Your task to perform on an android device: open chrome and create a bookmark for the current page Image 0: 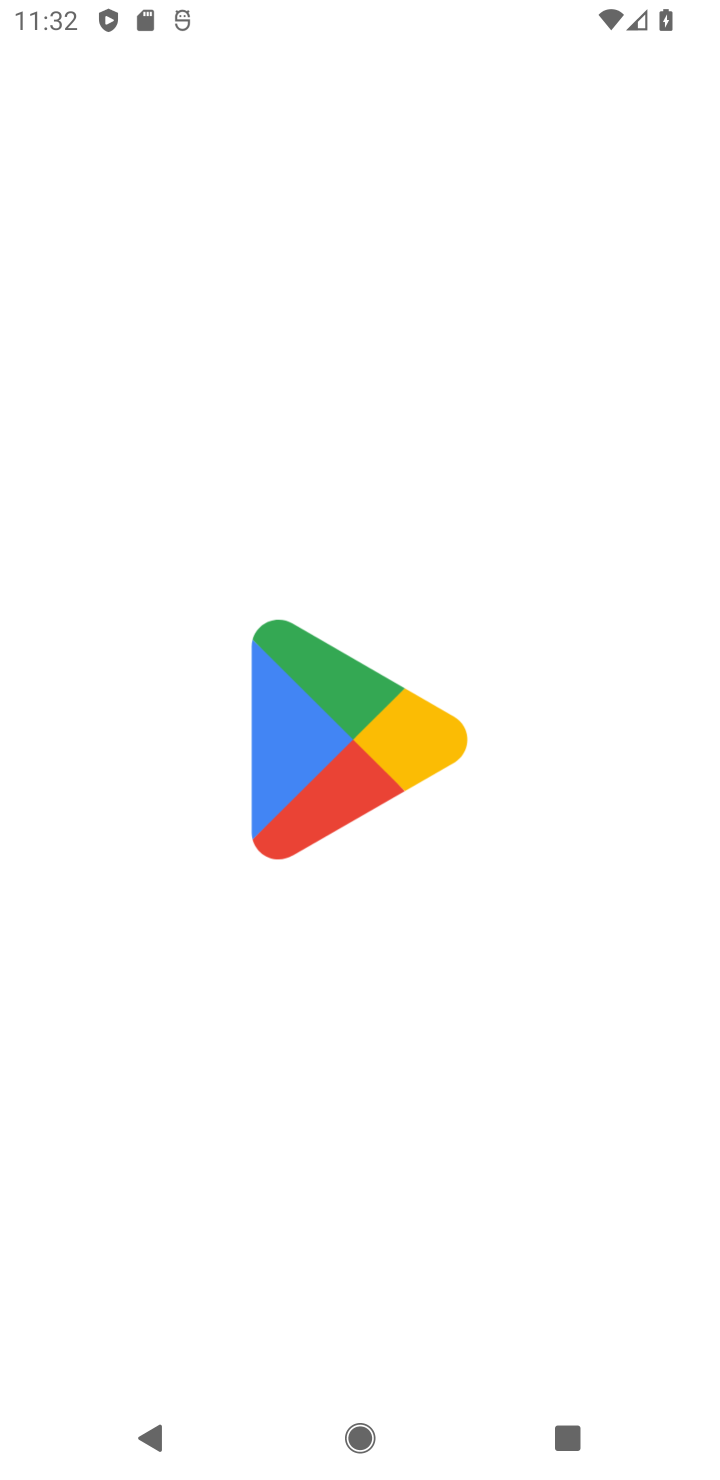
Step 0: press home button
Your task to perform on an android device: open chrome and create a bookmark for the current page Image 1: 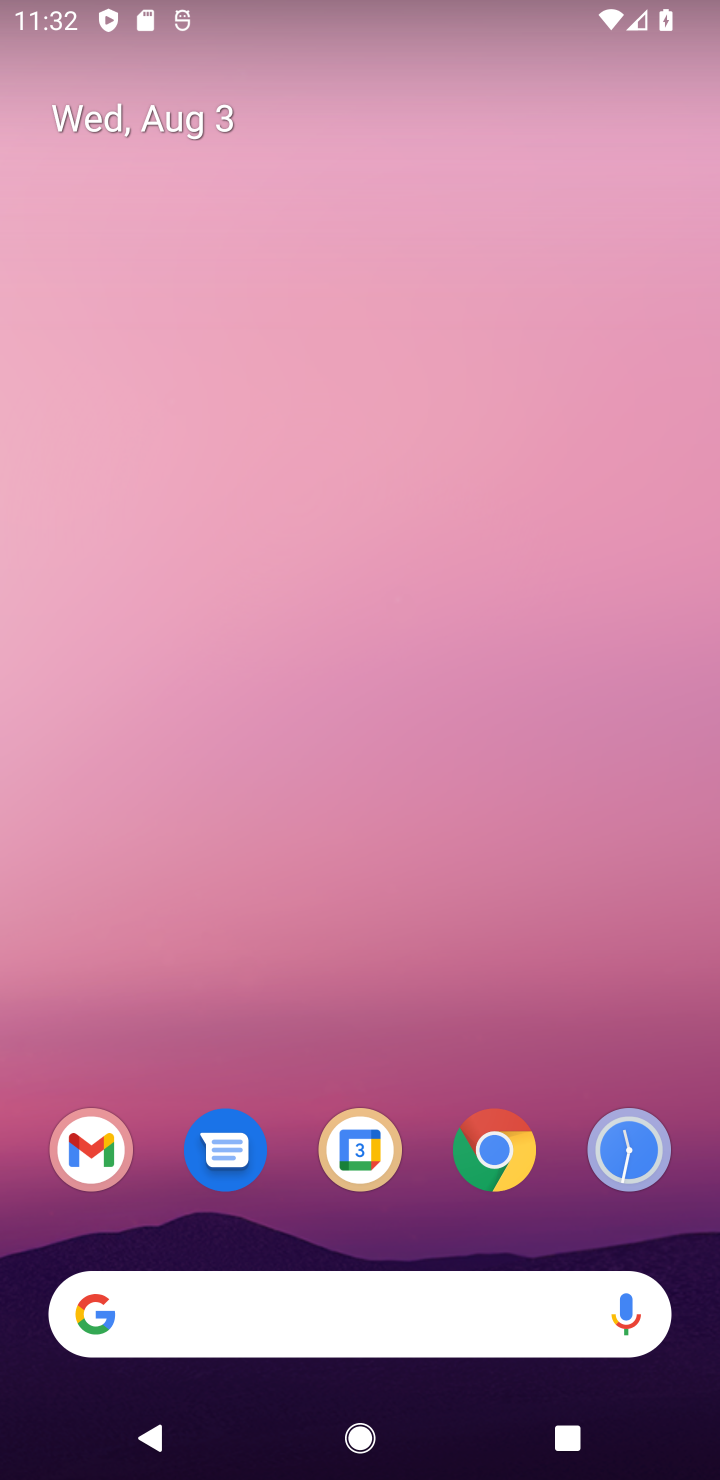
Step 1: drag from (575, 899) to (592, 394)
Your task to perform on an android device: open chrome and create a bookmark for the current page Image 2: 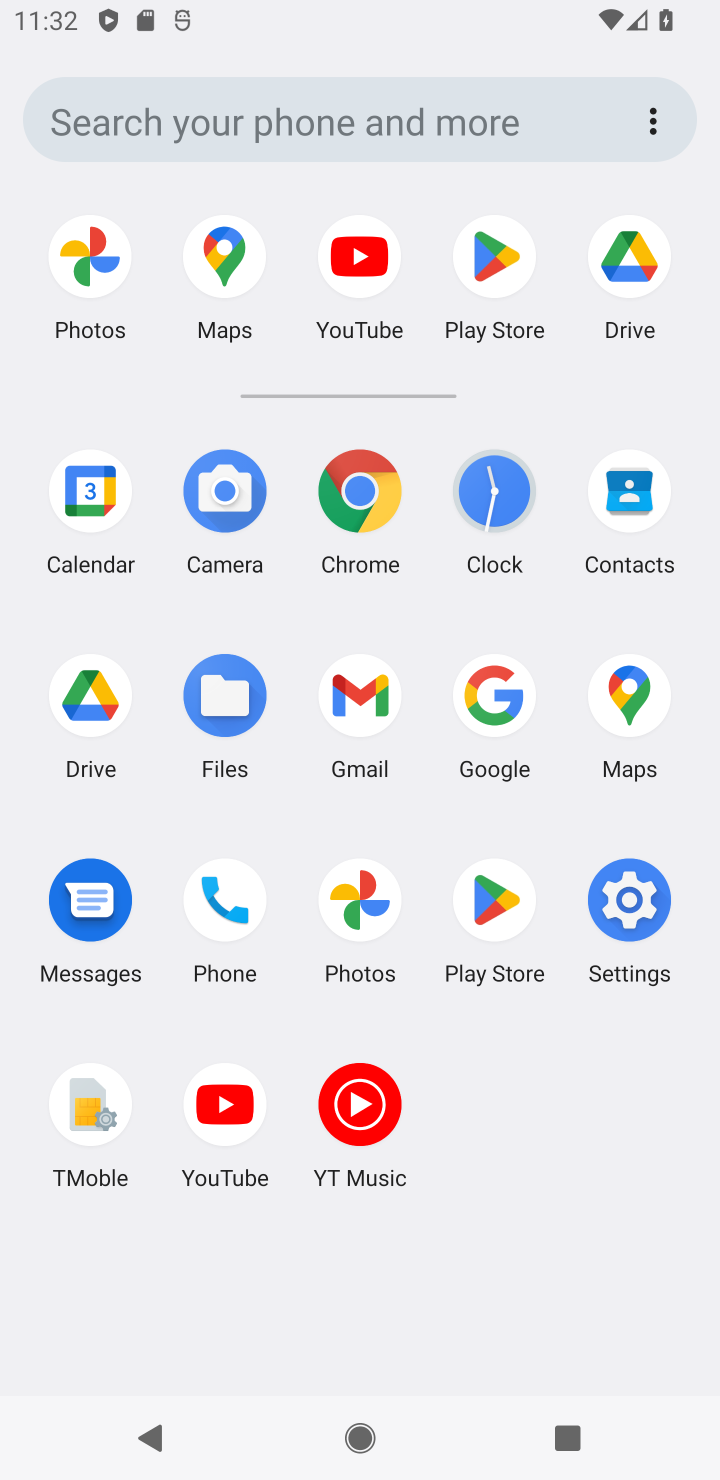
Step 2: click (355, 487)
Your task to perform on an android device: open chrome and create a bookmark for the current page Image 3: 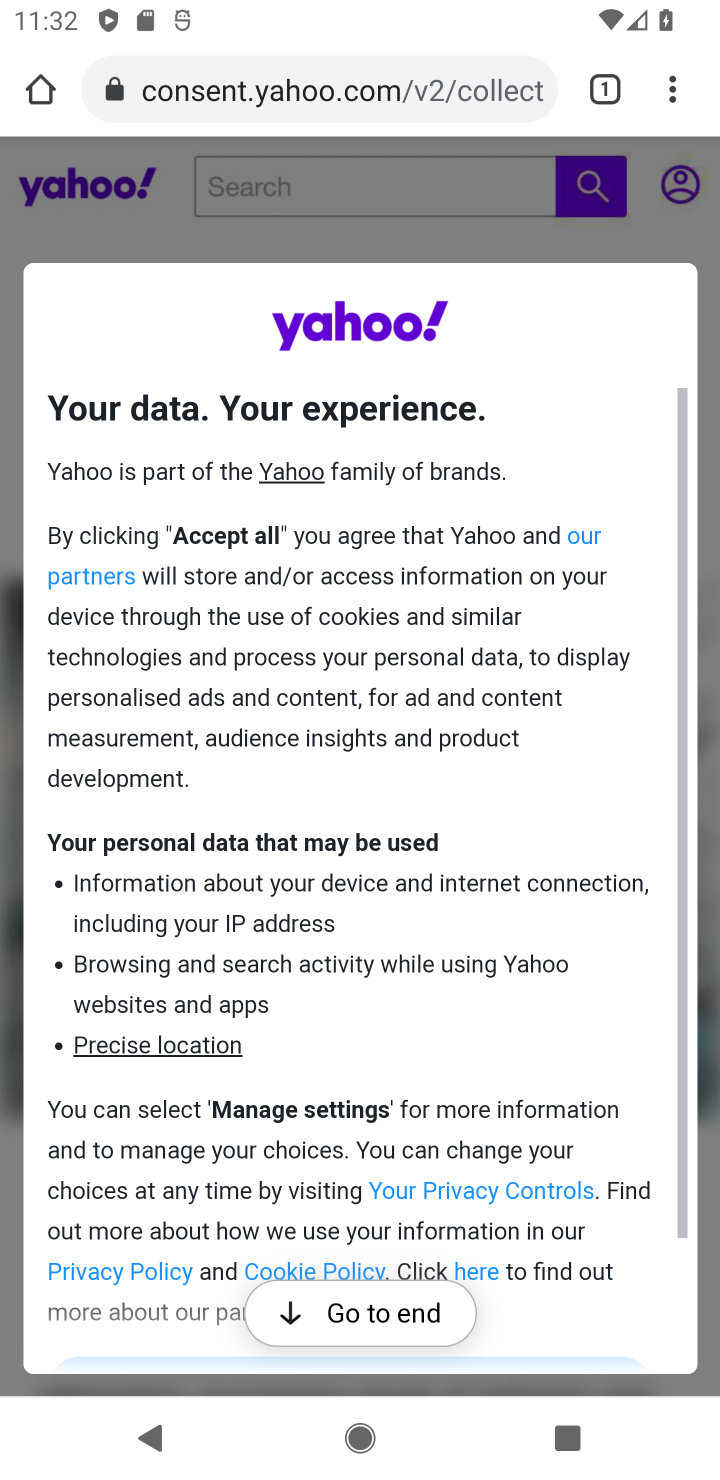
Step 3: click (670, 93)
Your task to perform on an android device: open chrome and create a bookmark for the current page Image 4: 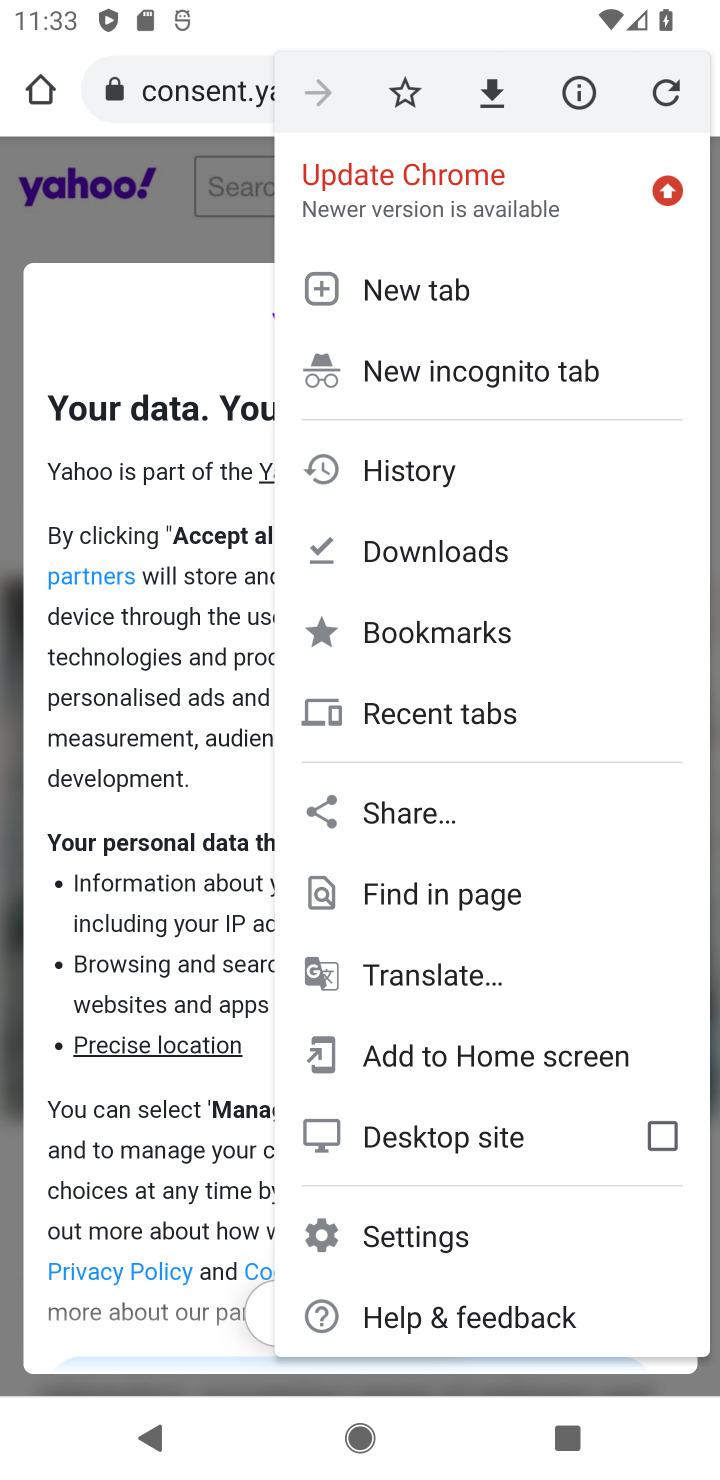
Step 4: click (405, 92)
Your task to perform on an android device: open chrome and create a bookmark for the current page Image 5: 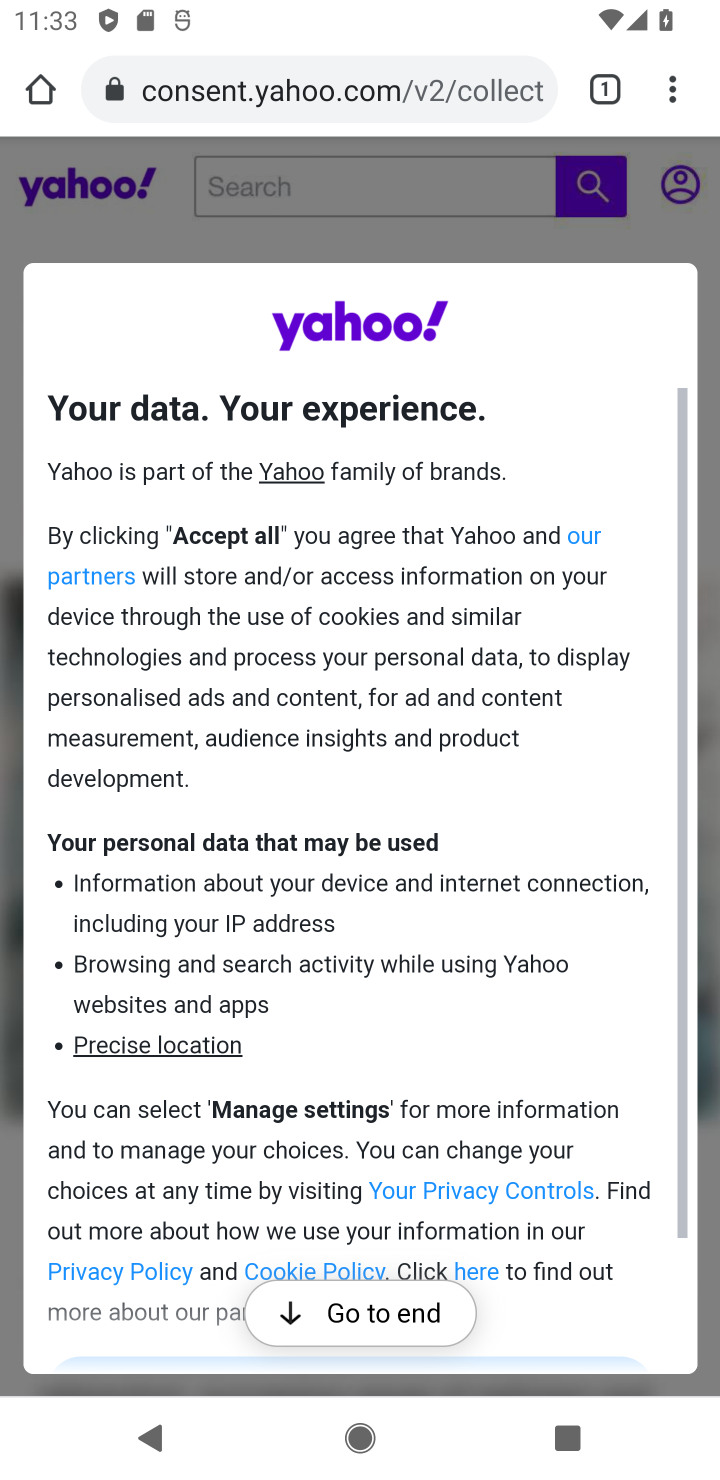
Step 5: task complete